Your task to perform on an android device: Go to sound settings Image 0: 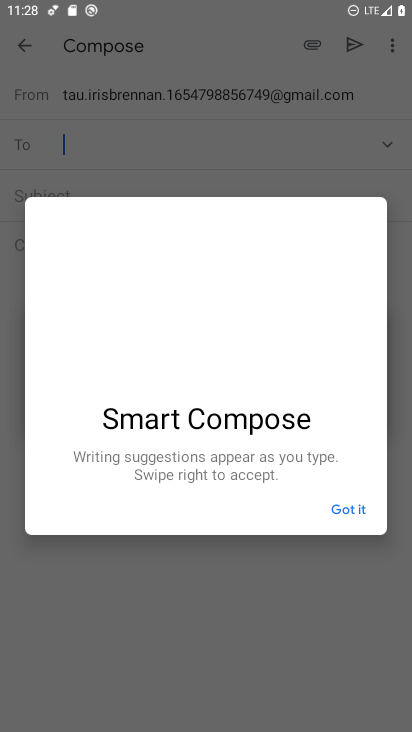
Step 0: press home button
Your task to perform on an android device: Go to sound settings Image 1: 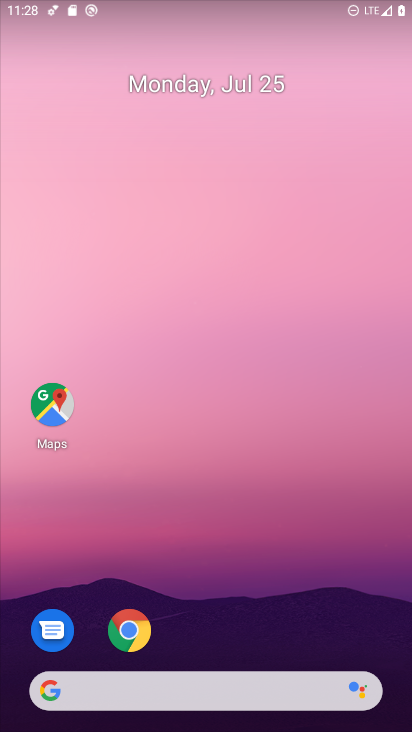
Step 1: drag from (226, 652) to (192, 2)
Your task to perform on an android device: Go to sound settings Image 2: 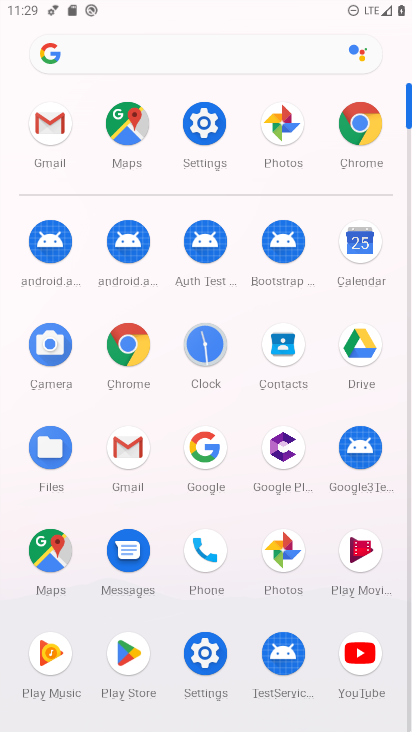
Step 2: click (203, 127)
Your task to perform on an android device: Go to sound settings Image 3: 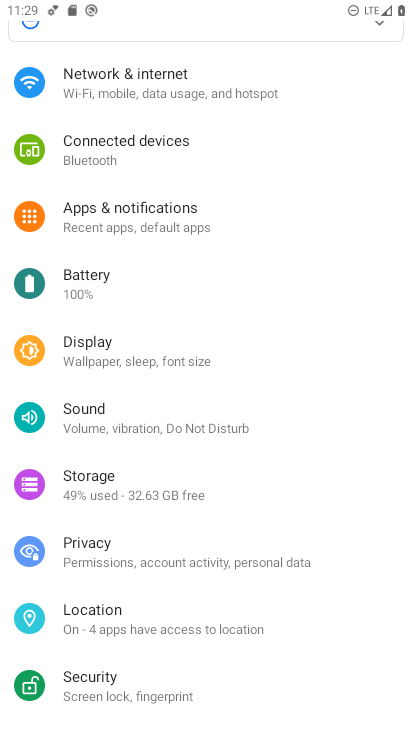
Step 3: click (89, 425)
Your task to perform on an android device: Go to sound settings Image 4: 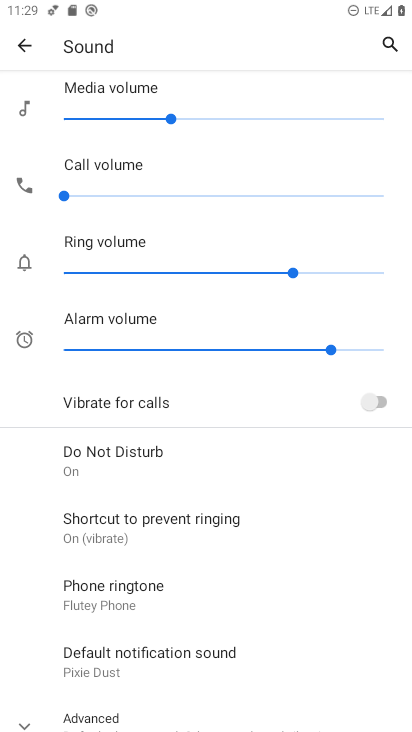
Step 4: task complete